Your task to perform on an android device: Show me recent news Image 0: 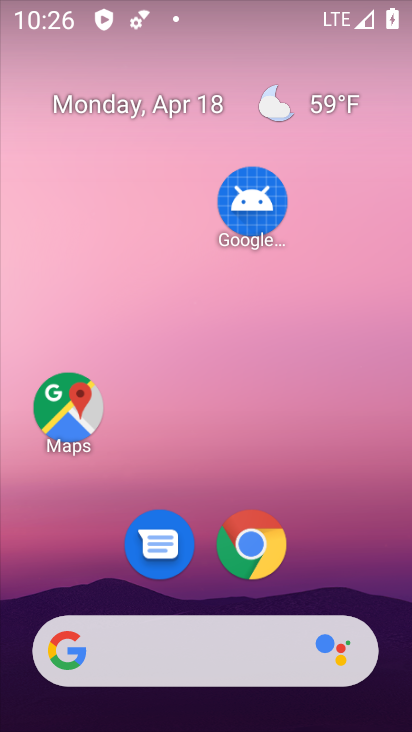
Step 0: drag from (309, 446) to (309, 263)
Your task to perform on an android device: Show me recent news Image 1: 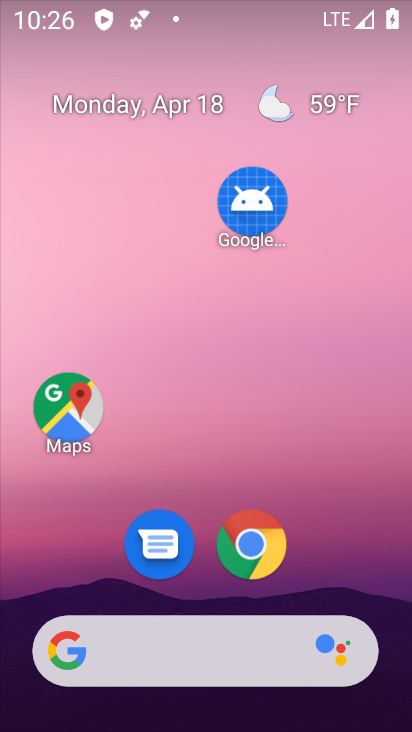
Step 1: drag from (329, 417) to (344, 284)
Your task to perform on an android device: Show me recent news Image 2: 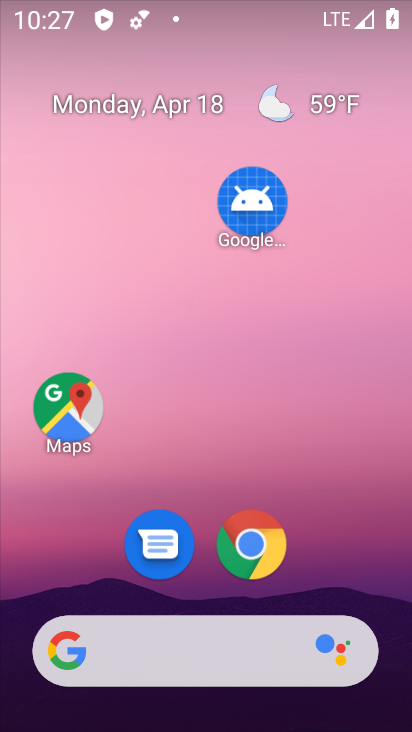
Step 2: click (221, 530)
Your task to perform on an android device: Show me recent news Image 3: 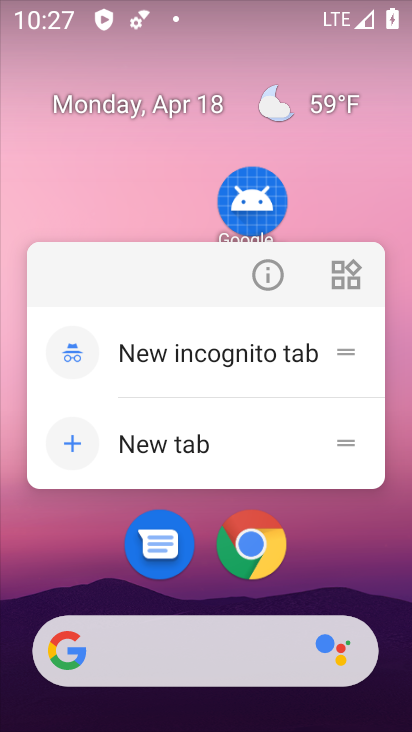
Step 3: click (255, 542)
Your task to perform on an android device: Show me recent news Image 4: 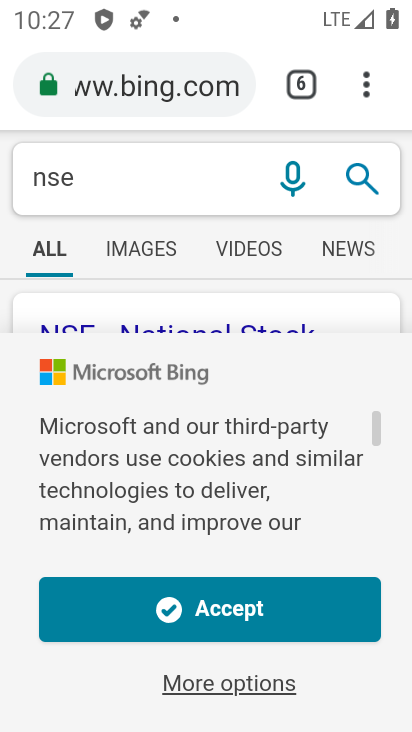
Step 4: click (363, 80)
Your task to perform on an android device: Show me recent news Image 5: 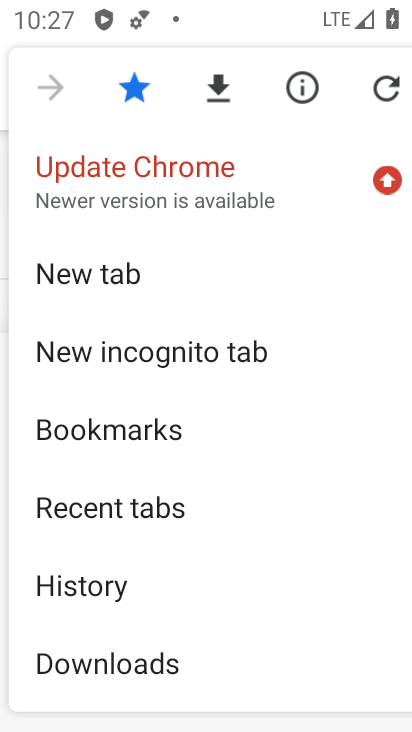
Step 5: click (165, 268)
Your task to perform on an android device: Show me recent news Image 6: 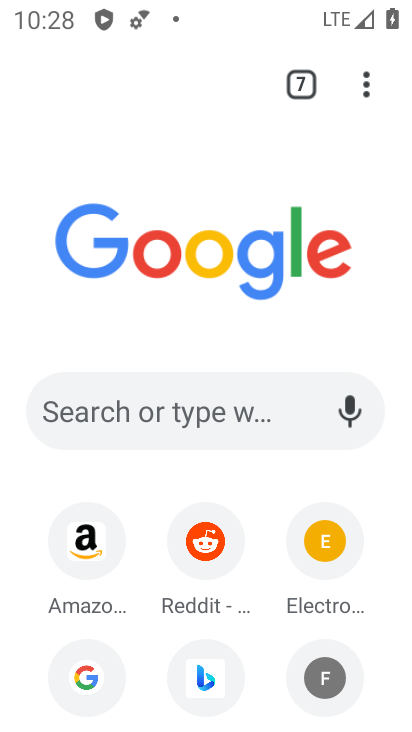
Step 6: click (174, 441)
Your task to perform on an android device: Show me recent news Image 7: 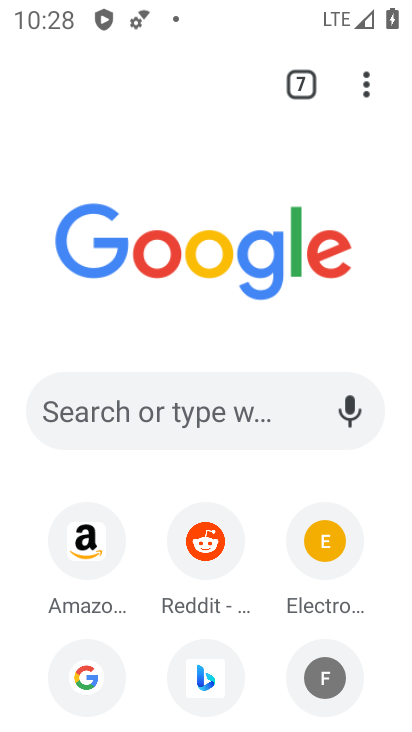
Step 7: click (185, 420)
Your task to perform on an android device: Show me recent news Image 8: 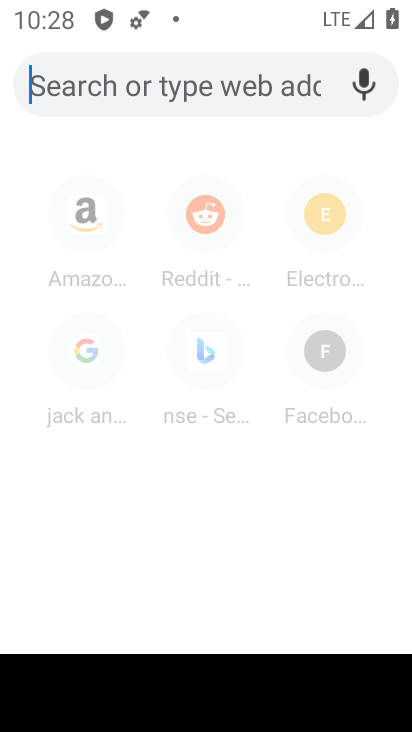
Step 8: type "recent news"
Your task to perform on an android device: Show me recent news Image 9: 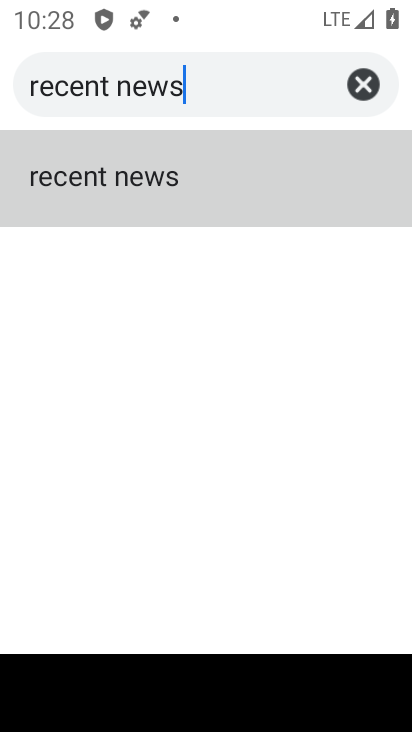
Step 9: click (288, 185)
Your task to perform on an android device: Show me recent news Image 10: 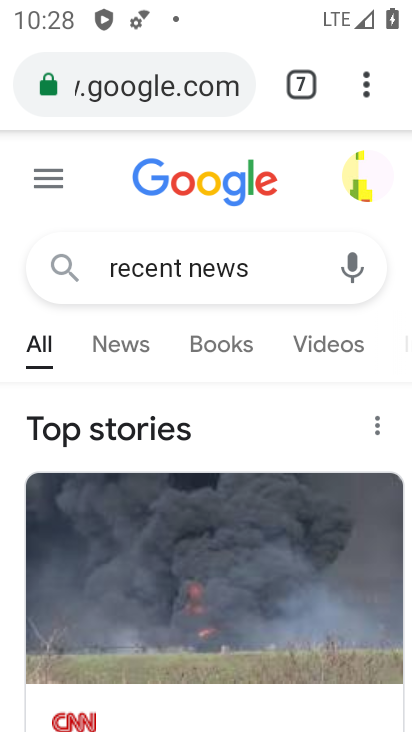
Step 10: task complete